Your task to perform on an android device: Go to Amazon Image 0: 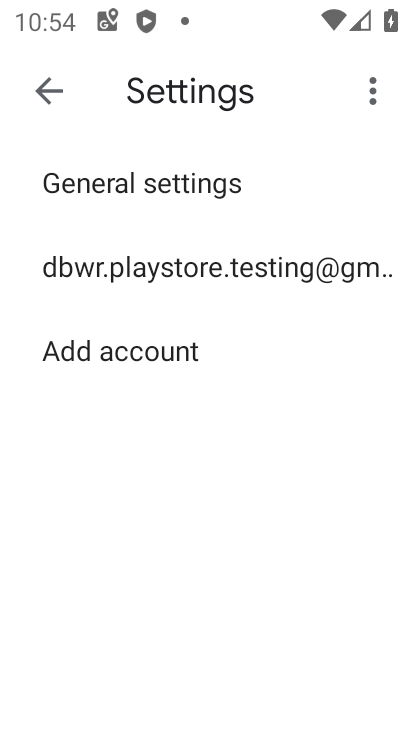
Step 0: press home button
Your task to perform on an android device: Go to Amazon Image 1: 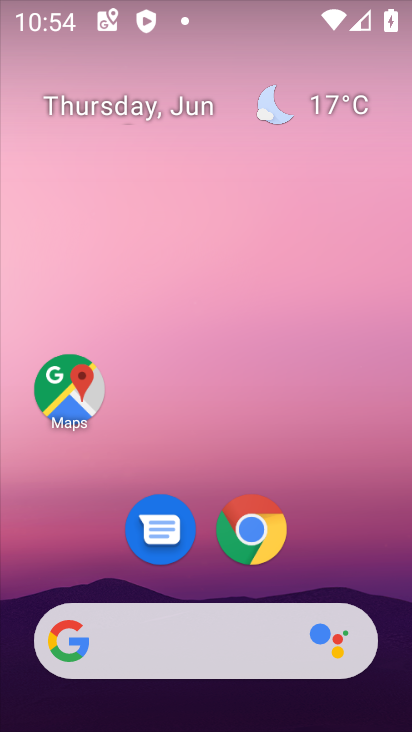
Step 1: click (250, 528)
Your task to perform on an android device: Go to Amazon Image 2: 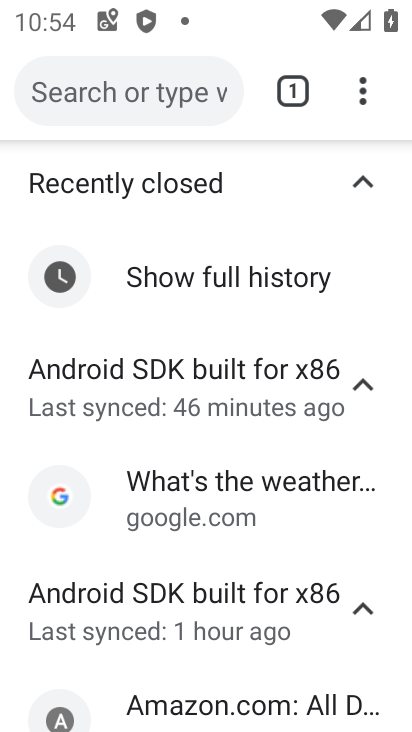
Step 2: click (75, 81)
Your task to perform on an android device: Go to Amazon Image 3: 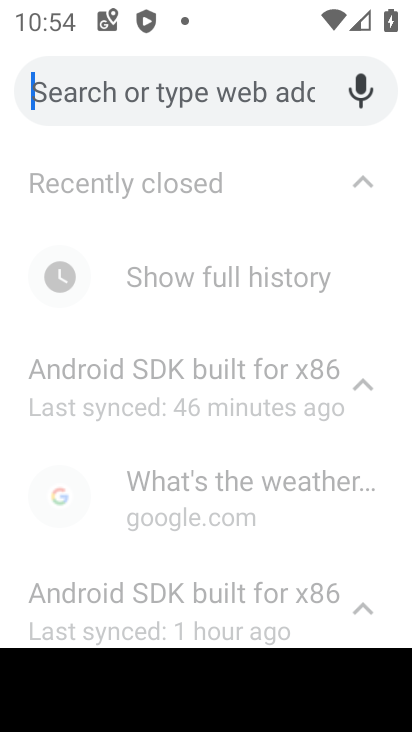
Step 3: type "amazon"
Your task to perform on an android device: Go to Amazon Image 4: 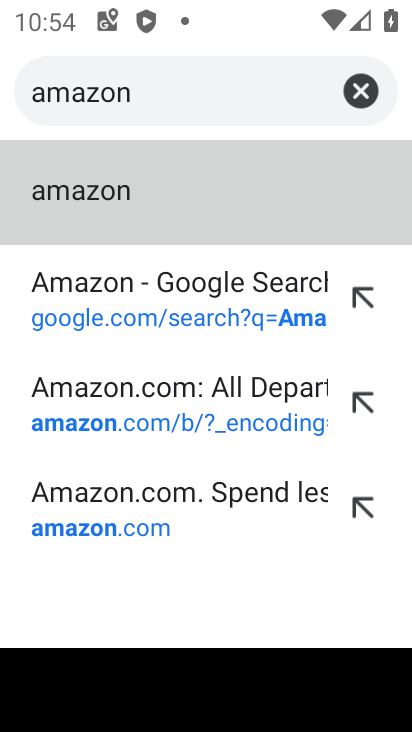
Step 4: click (71, 210)
Your task to perform on an android device: Go to Amazon Image 5: 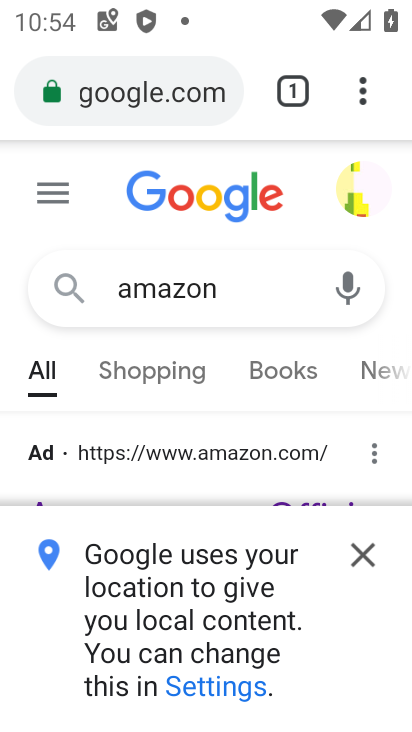
Step 5: click (360, 555)
Your task to perform on an android device: Go to Amazon Image 6: 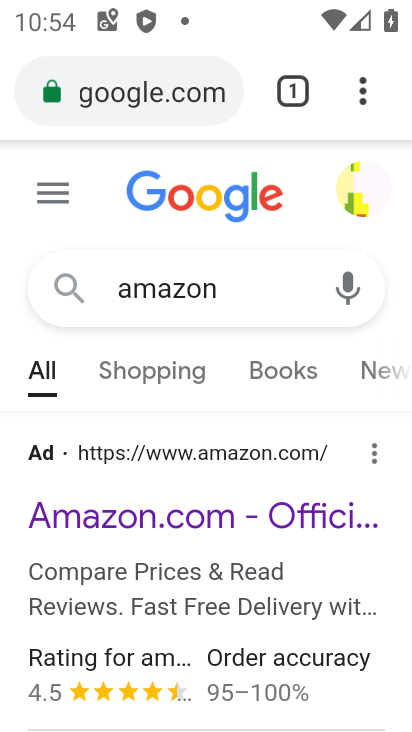
Step 6: click (117, 526)
Your task to perform on an android device: Go to Amazon Image 7: 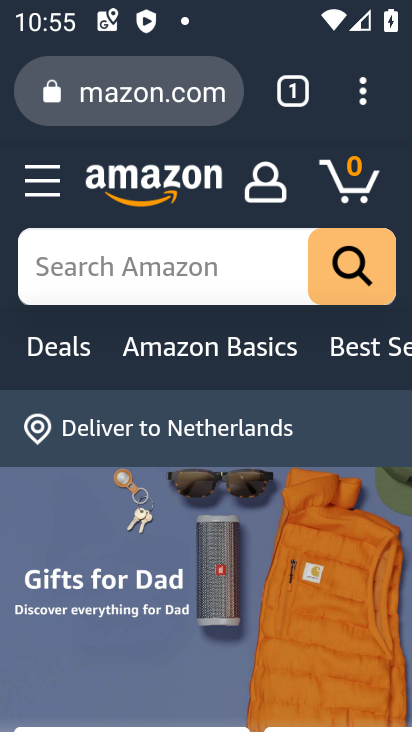
Step 7: task complete